Your task to perform on an android device: When is my next meeting? Image 0: 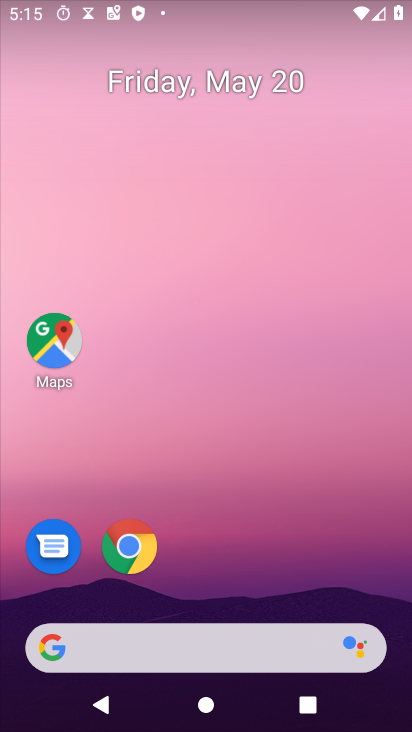
Step 0: drag from (261, 566) to (219, 183)
Your task to perform on an android device: When is my next meeting? Image 1: 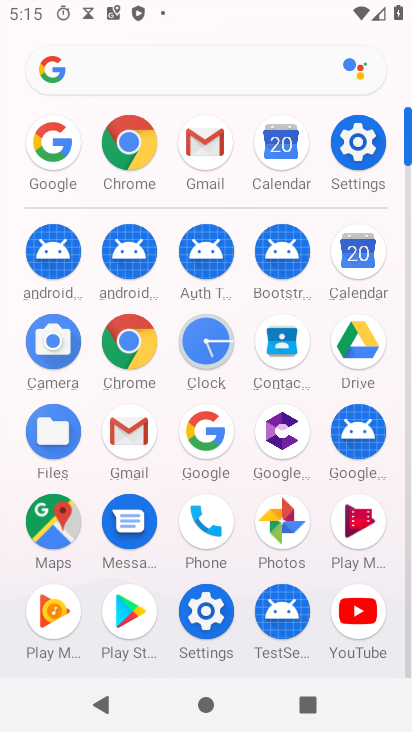
Step 1: click (359, 253)
Your task to perform on an android device: When is my next meeting? Image 2: 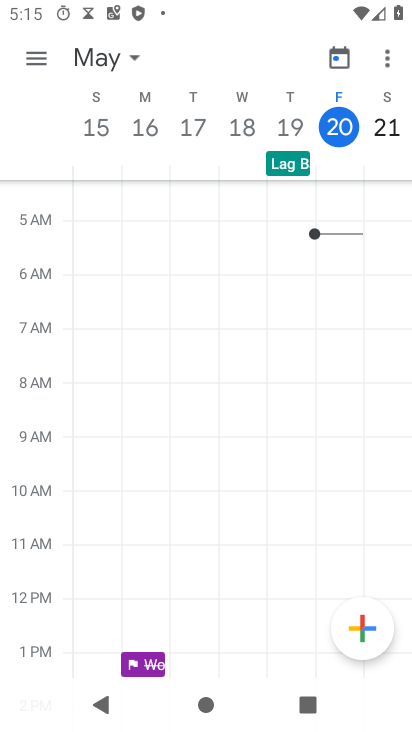
Step 2: click (339, 57)
Your task to perform on an android device: When is my next meeting? Image 3: 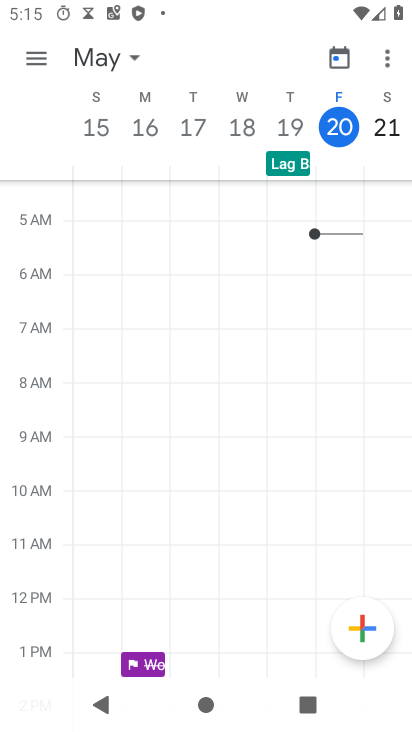
Step 3: click (138, 61)
Your task to perform on an android device: When is my next meeting? Image 4: 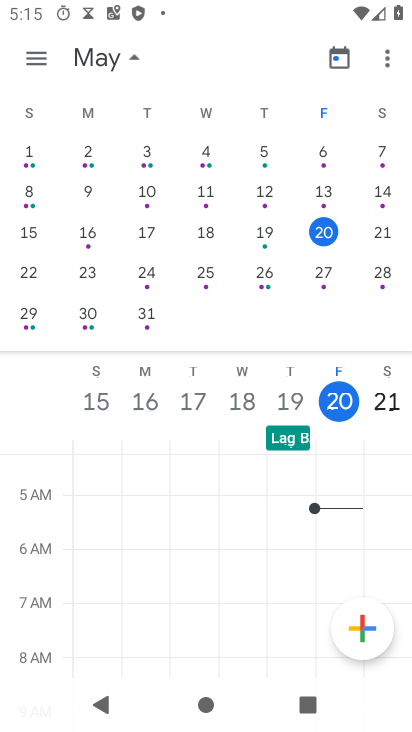
Step 4: click (146, 276)
Your task to perform on an android device: When is my next meeting? Image 5: 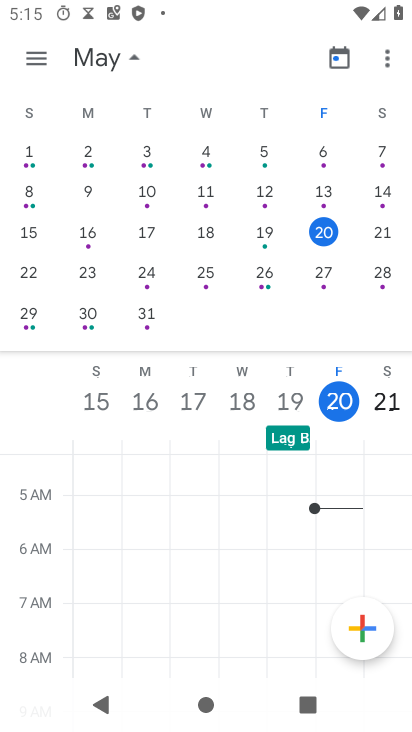
Step 5: click (148, 271)
Your task to perform on an android device: When is my next meeting? Image 6: 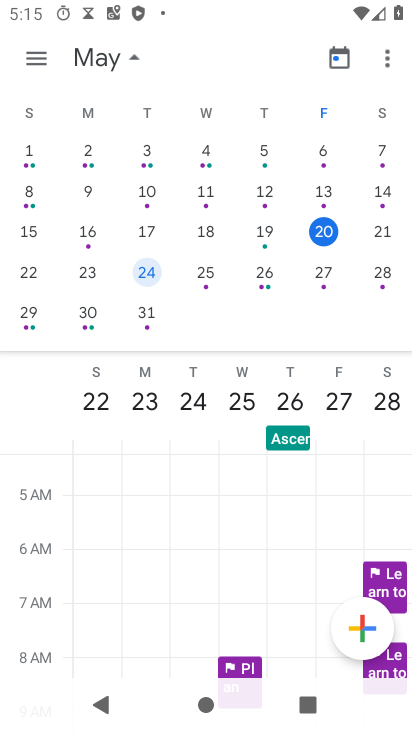
Step 6: click (37, 56)
Your task to perform on an android device: When is my next meeting? Image 7: 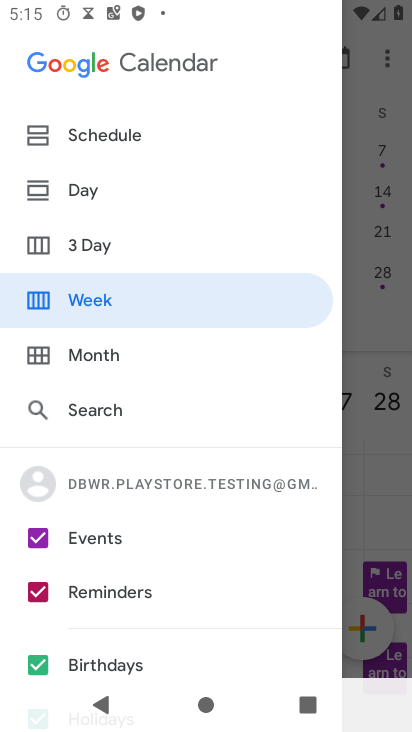
Step 7: click (87, 310)
Your task to perform on an android device: When is my next meeting? Image 8: 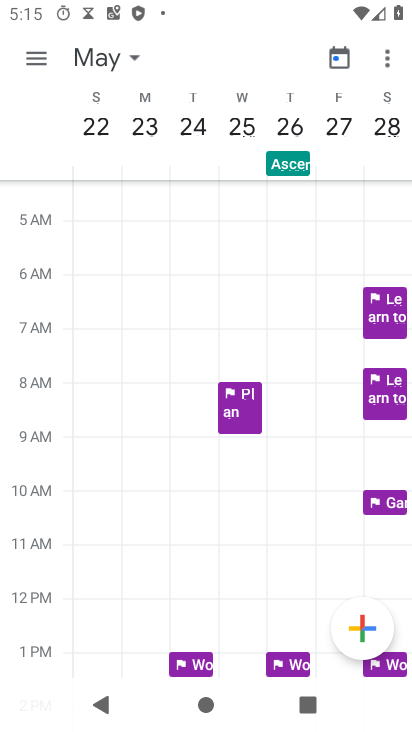
Step 8: task complete